Your task to perform on an android device: Go to Maps Image 0: 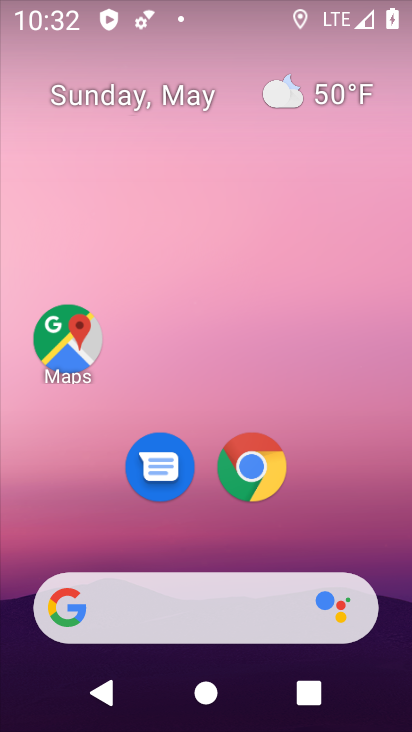
Step 0: click (57, 361)
Your task to perform on an android device: Go to Maps Image 1: 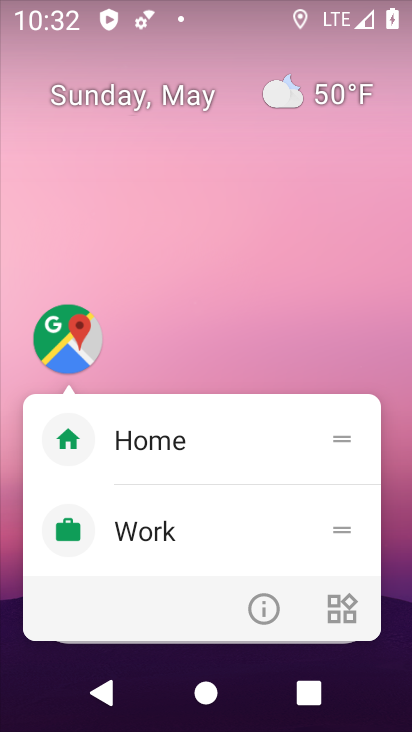
Step 1: click (57, 361)
Your task to perform on an android device: Go to Maps Image 2: 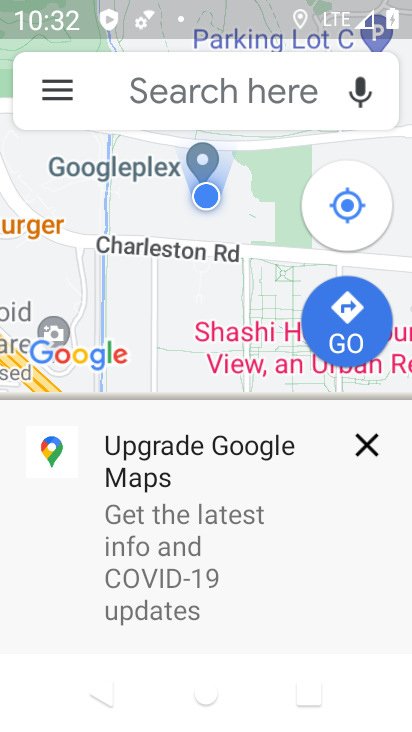
Step 2: task complete